Your task to perform on an android device: Open Google Chrome and open the bookmarks view Image 0: 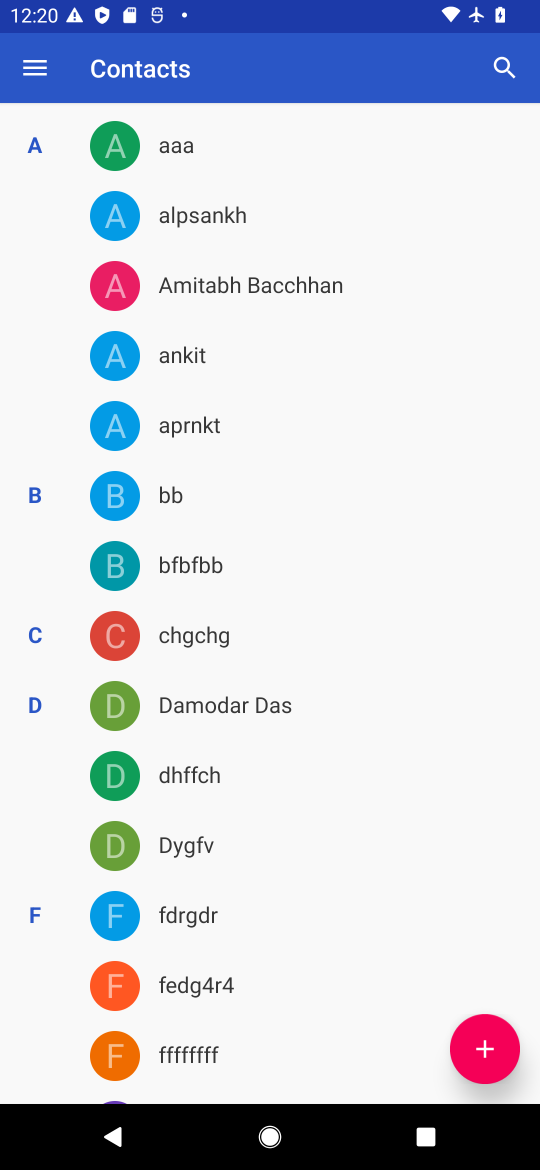
Step 0: press home button
Your task to perform on an android device: Open Google Chrome and open the bookmarks view Image 1: 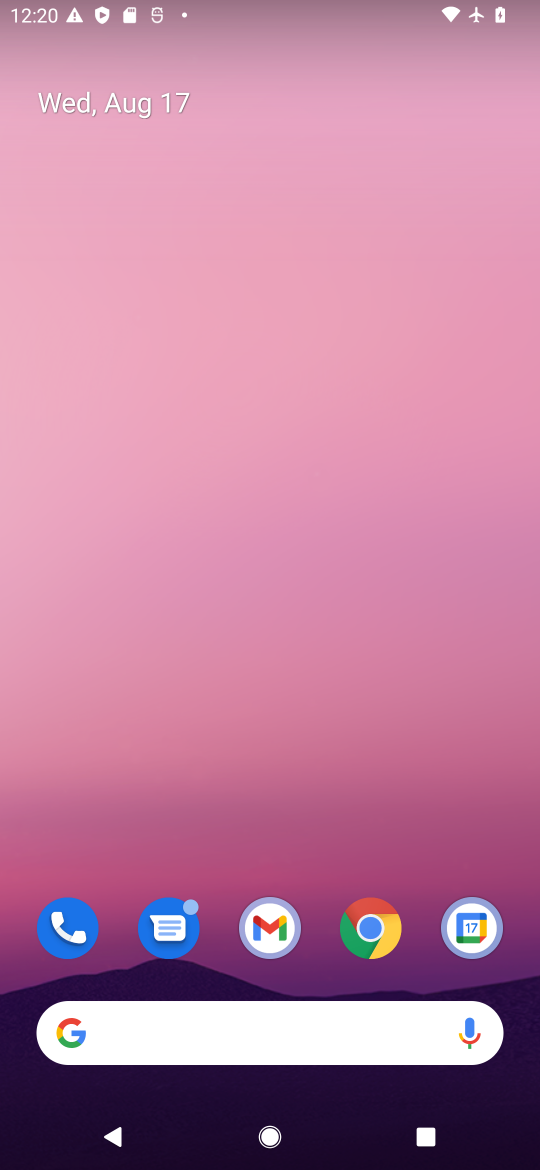
Step 1: click (352, 926)
Your task to perform on an android device: Open Google Chrome and open the bookmarks view Image 2: 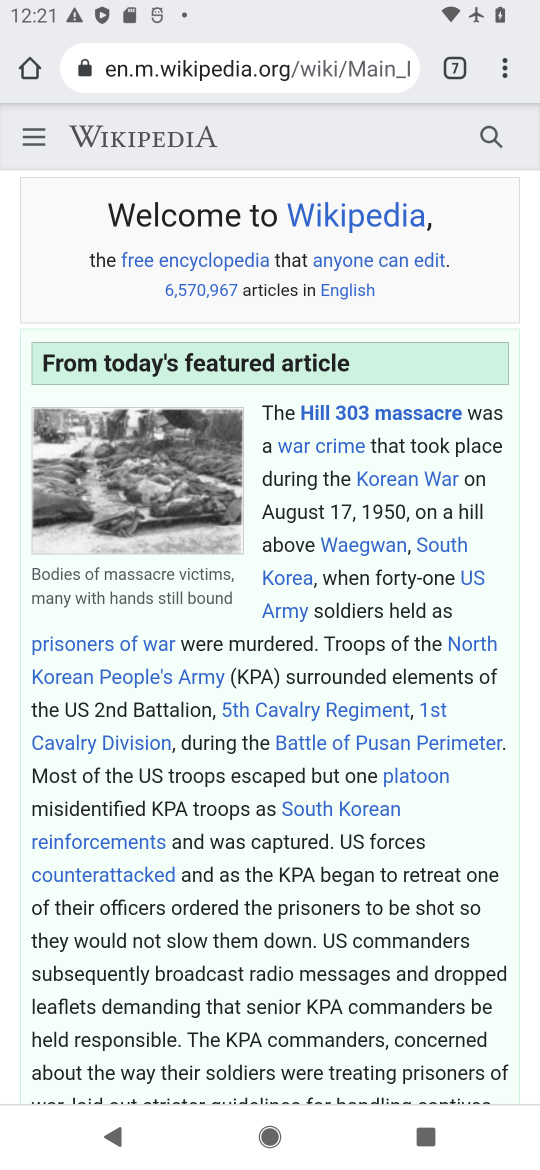
Step 2: click (503, 73)
Your task to perform on an android device: Open Google Chrome and open the bookmarks view Image 3: 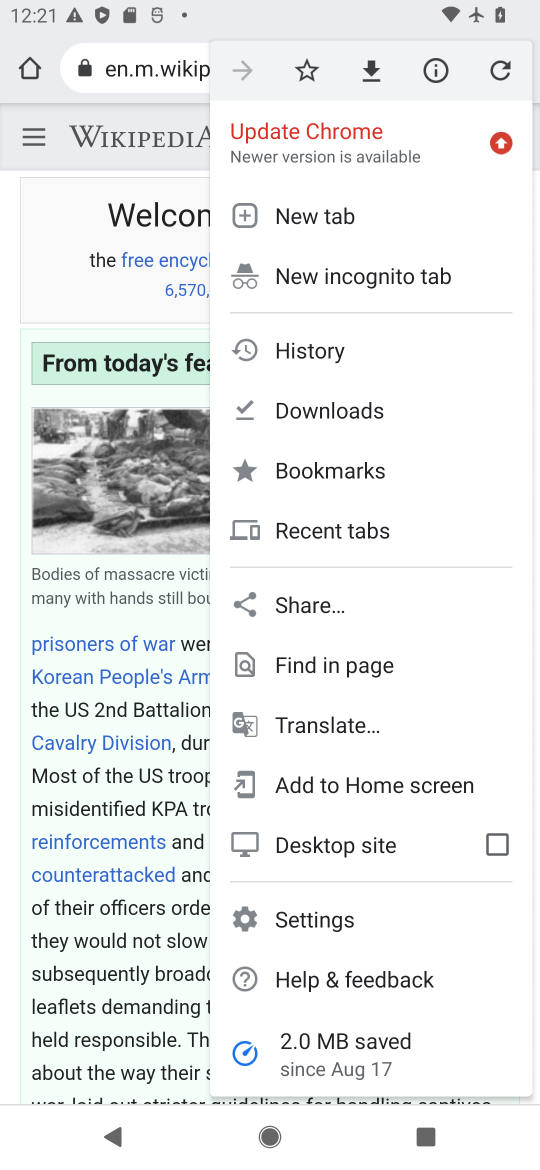
Step 3: click (349, 465)
Your task to perform on an android device: Open Google Chrome and open the bookmarks view Image 4: 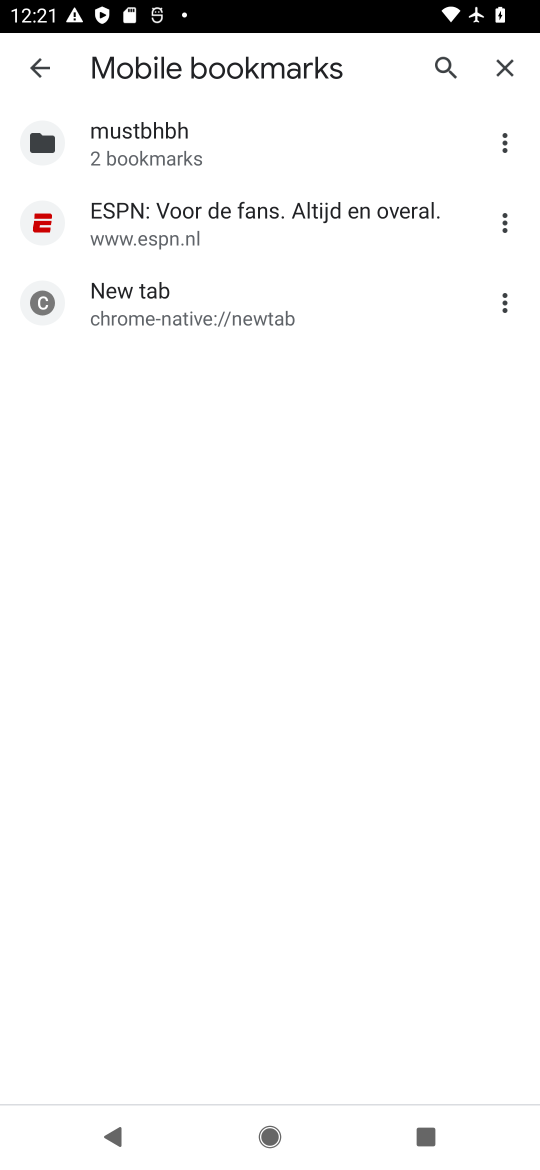
Step 4: task complete